Your task to perform on an android device: toggle show notifications on the lock screen Image 0: 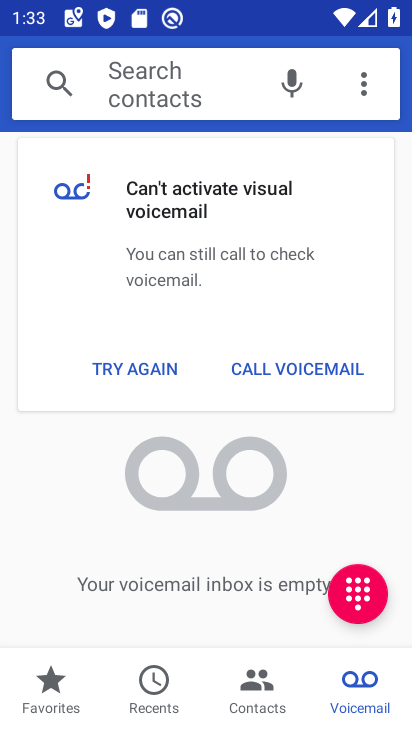
Step 0: press home button
Your task to perform on an android device: toggle show notifications on the lock screen Image 1: 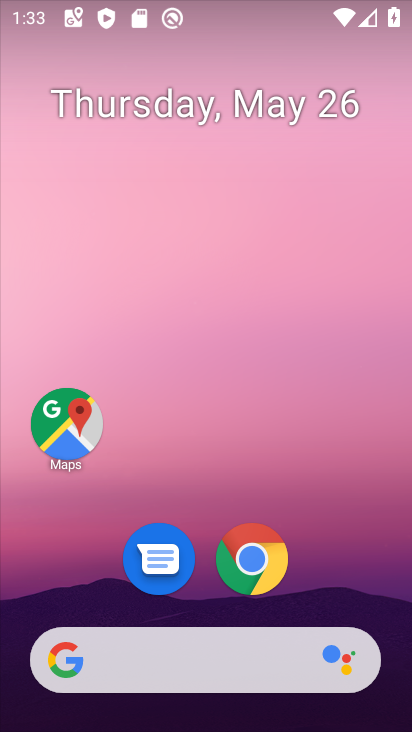
Step 1: drag from (151, 650) to (337, 124)
Your task to perform on an android device: toggle show notifications on the lock screen Image 2: 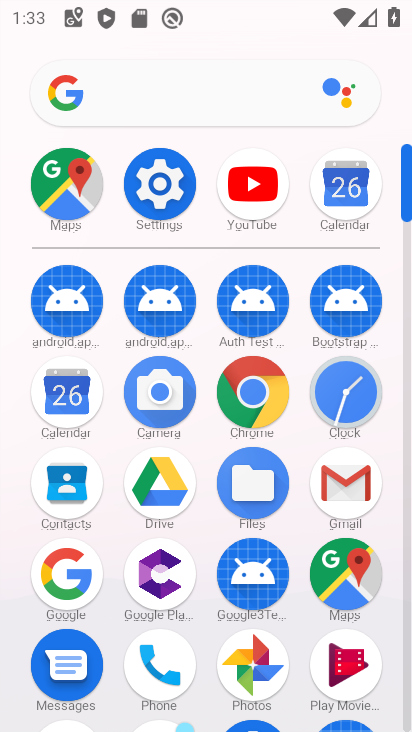
Step 2: click (181, 180)
Your task to perform on an android device: toggle show notifications on the lock screen Image 3: 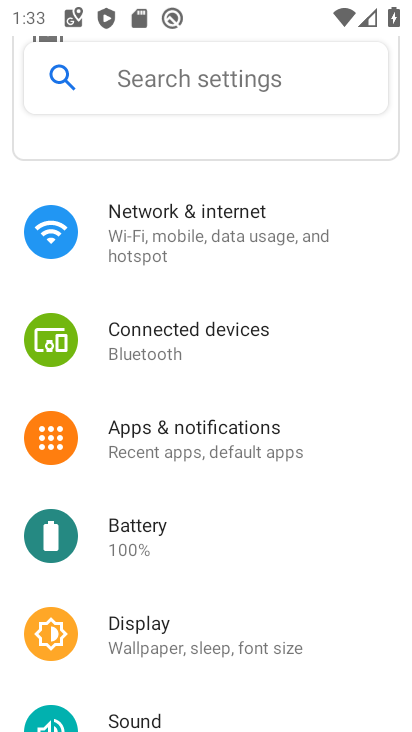
Step 3: click (204, 437)
Your task to perform on an android device: toggle show notifications on the lock screen Image 4: 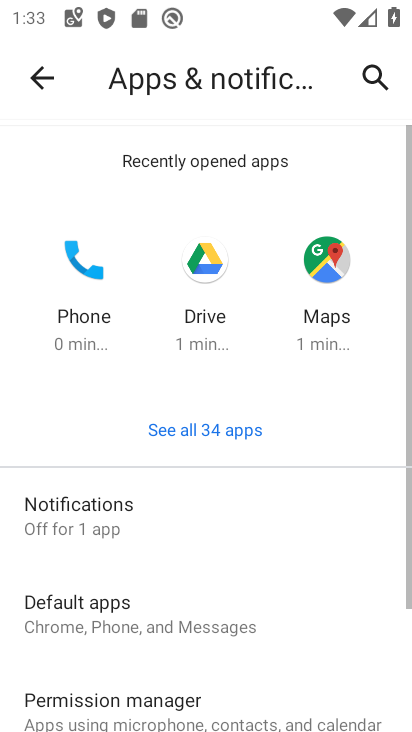
Step 4: click (114, 521)
Your task to perform on an android device: toggle show notifications on the lock screen Image 5: 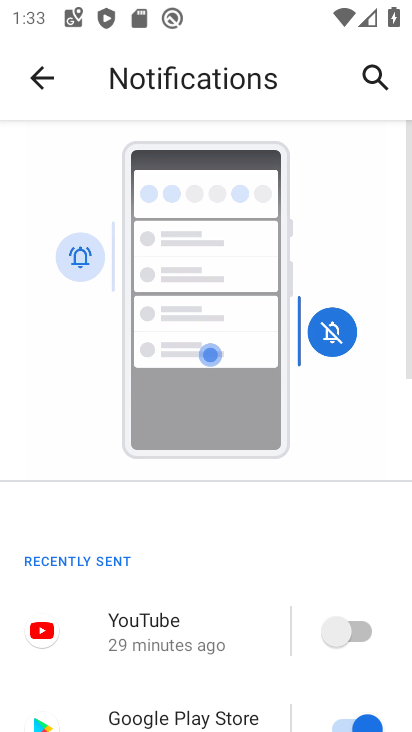
Step 5: drag from (238, 596) to (398, 223)
Your task to perform on an android device: toggle show notifications on the lock screen Image 6: 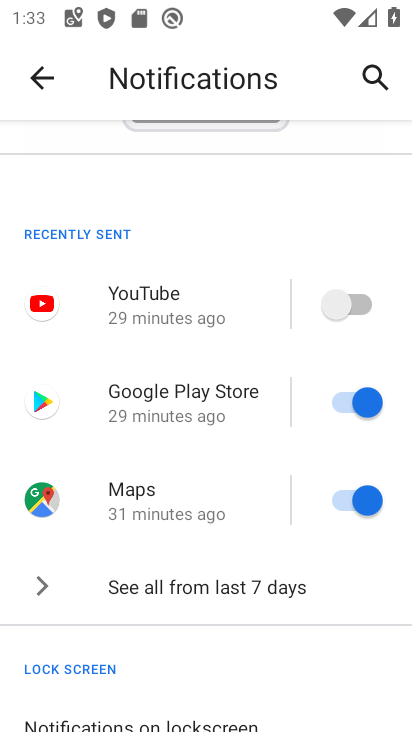
Step 6: drag from (209, 671) to (300, 256)
Your task to perform on an android device: toggle show notifications on the lock screen Image 7: 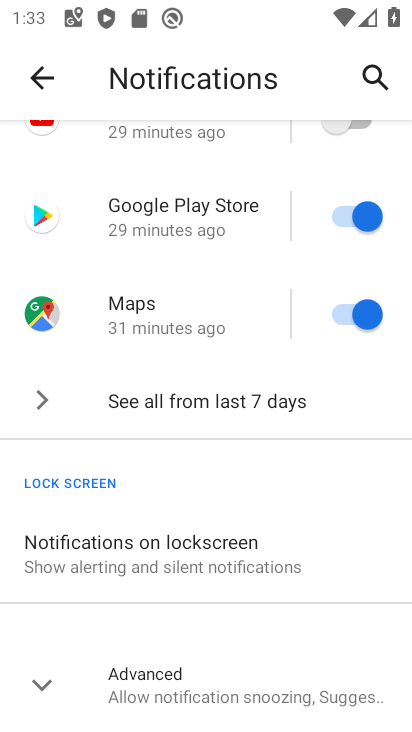
Step 7: click (211, 564)
Your task to perform on an android device: toggle show notifications on the lock screen Image 8: 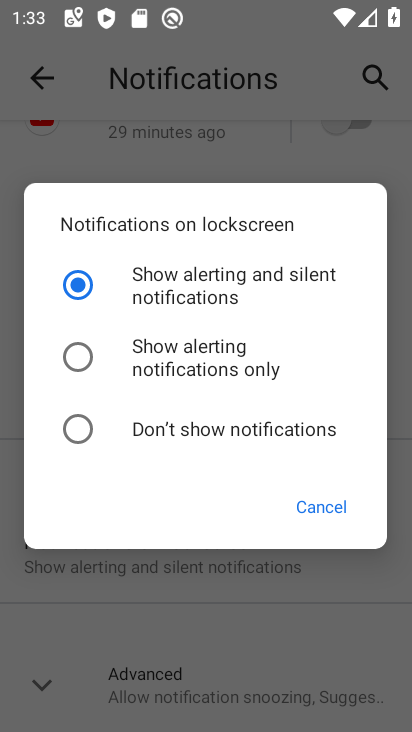
Step 8: click (85, 436)
Your task to perform on an android device: toggle show notifications on the lock screen Image 9: 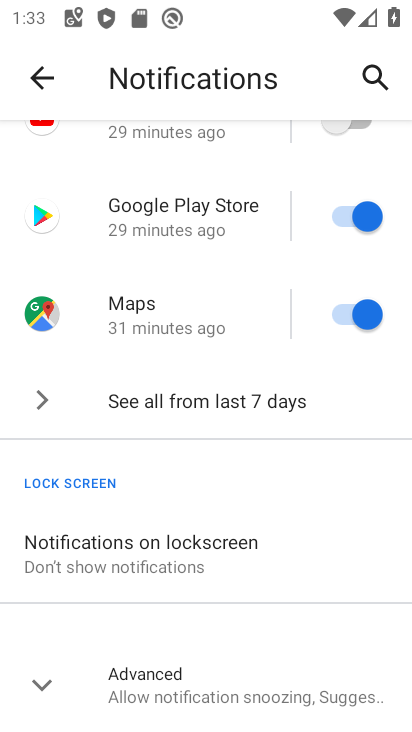
Step 9: task complete